Your task to perform on an android device: Go to CNN.com Image 0: 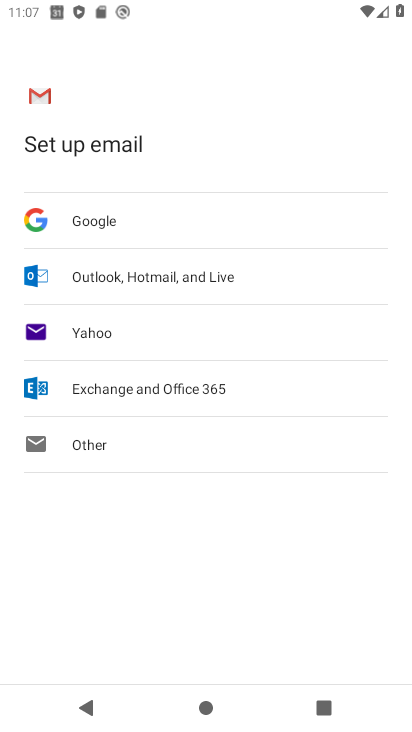
Step 0: press home button
Your task to perform on an android device: Go to CNN.com Image 1: 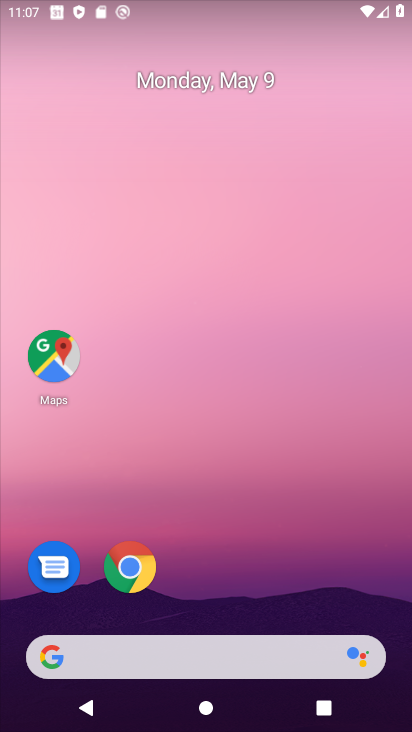
Step 1: drag from (361, 505) to (257, 77)
Your task to perform on an android device: Go to CNN.com Image 2: 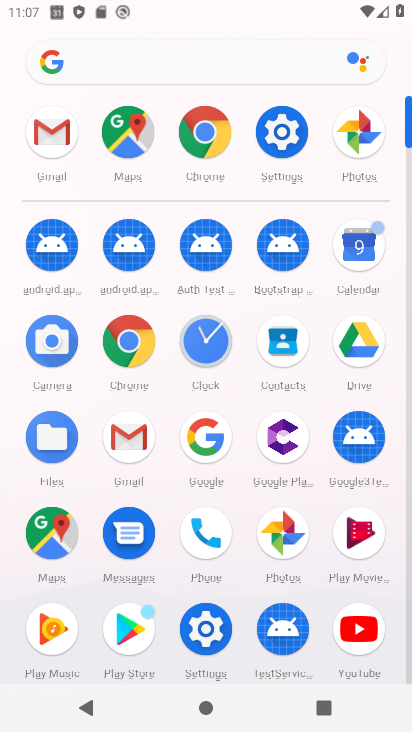
Step 2: click (205, 151)
Your task to perform on an android device: Go to CNN.com Image 3: 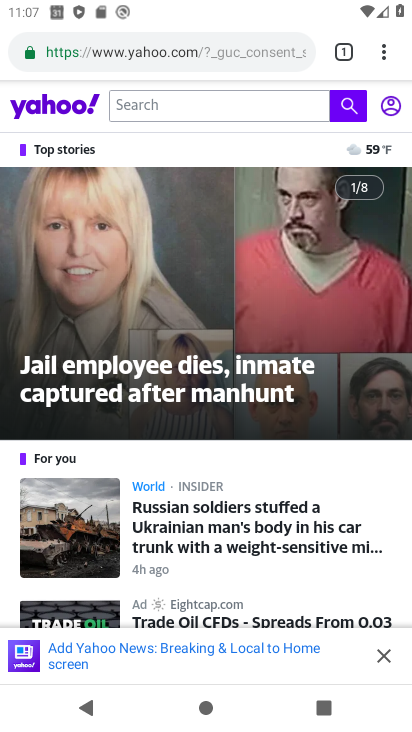
Step 3: press back button
Your task to perform on an android device: Go to CNN.com Image 4: 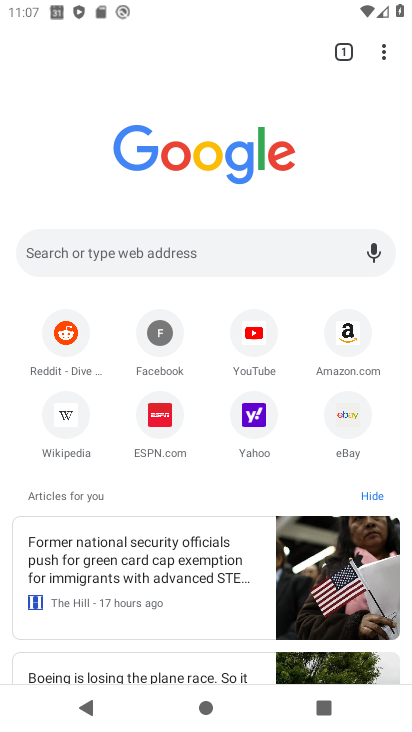
Step 4: click (183, 268)
Your task to perform on an android device: Go to CNN.com Image 5: 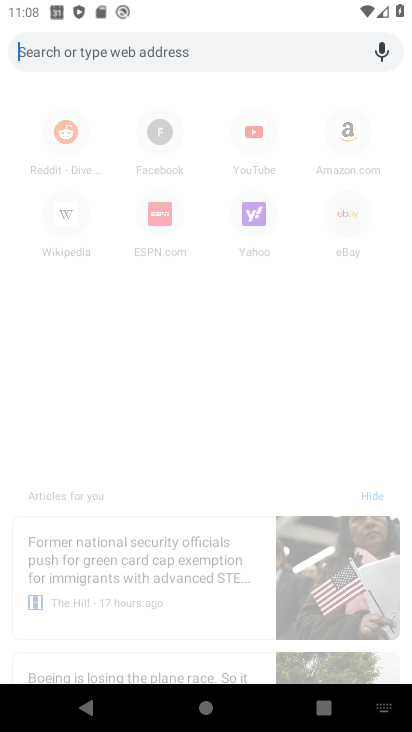
Step 5: type "cnn.com"
Your task to perform on an android device: Go to CNN.com Image 6: 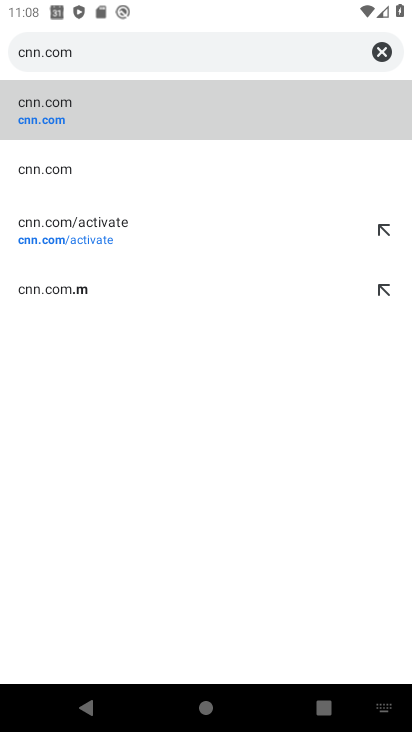
Step 6: click (256, 108)
Your task to perform on an android device: Go to CNN.com Image 7: 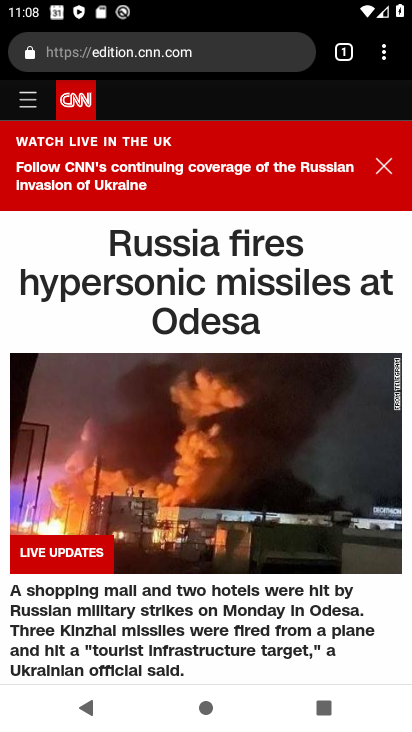
Step 7: task complete